Your task to perform on an android device: check the backup settings in the google photos Image 0: 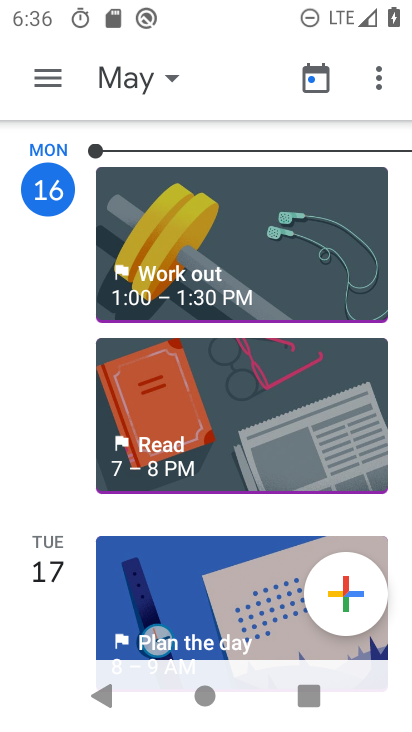
Step 0: press home button
Your task to perform on an android device: check the backup settings in the google photos Image 1: 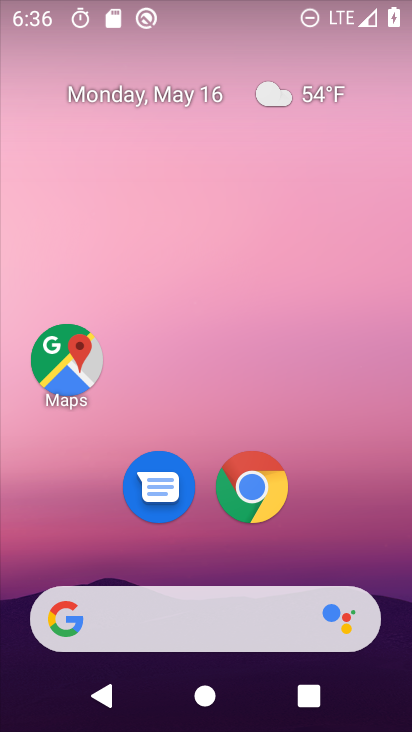
Step 1: drag from (214, 580) to (213, 76)
Your task to perform on an android device: check the backup settings in the google photos Image 2: 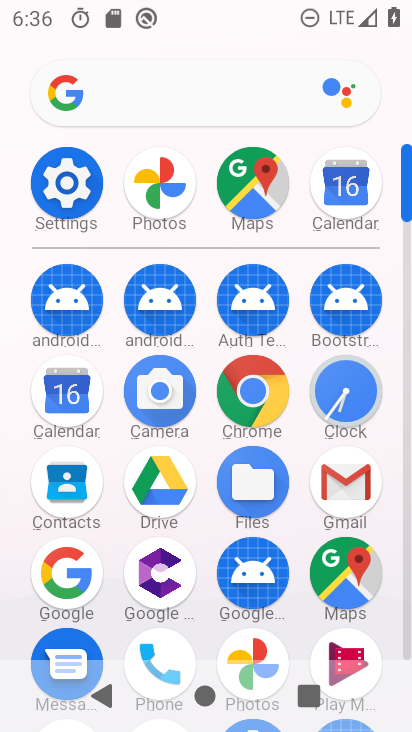
Step 2: click (248, 639)
Your task to perform on an android device: check the backup settings in the google photos Image 3: 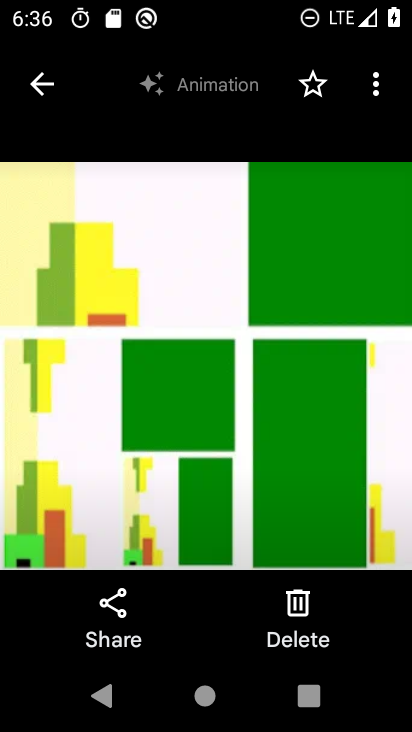
Step 3: click (44, 88)
Your task to perform on an android device: check the backup settings in the google photos Image 4: 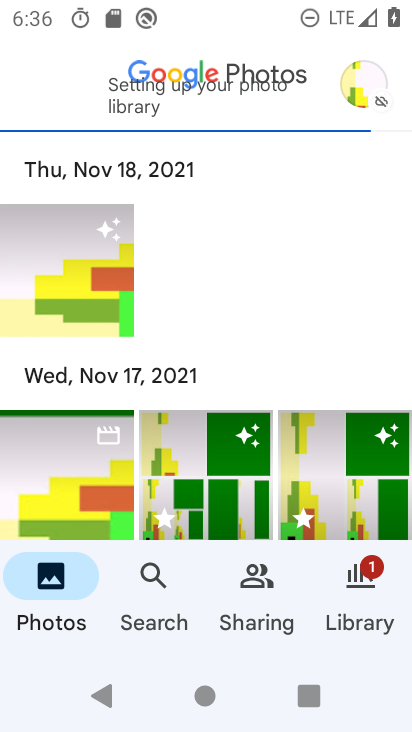
Step 4: click (344, 81)
Your task to perform on an android device: check the backup settings in the google photos Image 5: 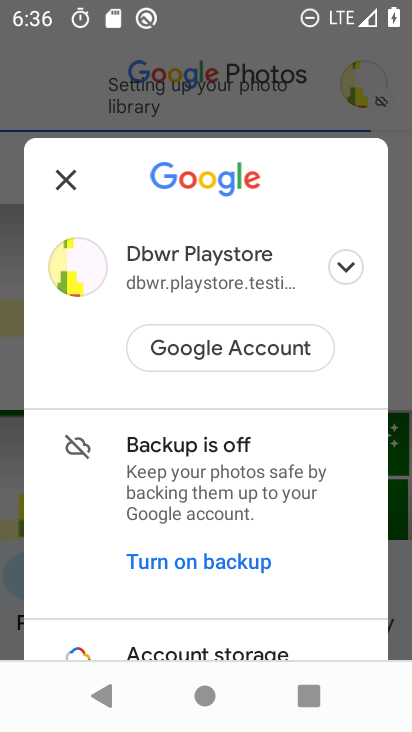
Step 5: click (207, 456)
Your task to perform on an android device: check the backup settings in the google photos Image 6: 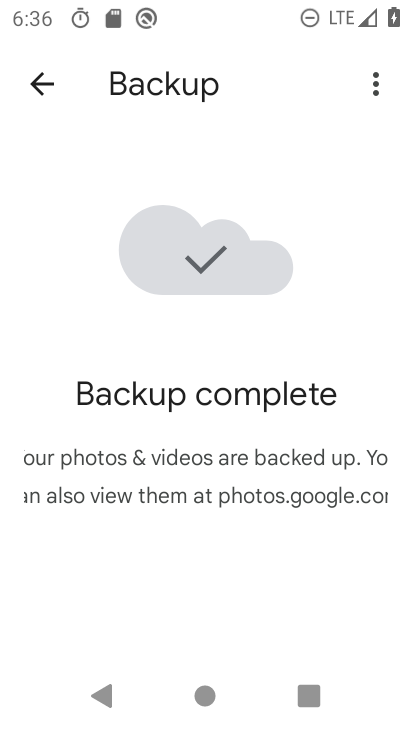
Step 6: task complete